Your task to perform on an android device: open app "Pluto TV - Live TV and Movies" Image 0: 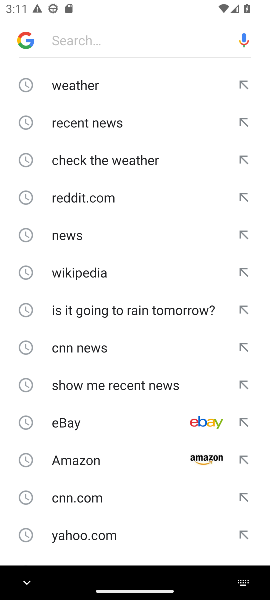
Step 0: press back button
Your task to perform on an android device: open app "Pluto TV - Live TV and Movies" Image 1: 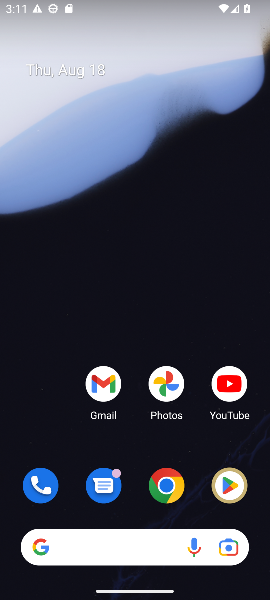
Step 1: click (225, 486)
Your task to perform on an android device: open app "Pluto TV - Live TV and Movies" Image 2: 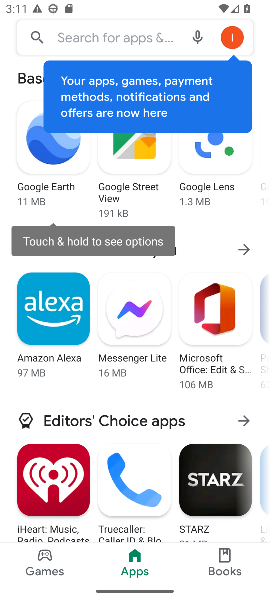
Step 2: click (107, 24)
Your task to perform on an android device: open app "Pluto TV - Live TV and Movies" Image 3: 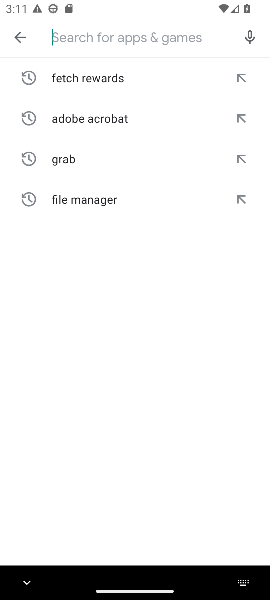
Step 3: type "pluto tv"
Your task to perform on an android device: open app "Pluto TV - Live TV and Movies" Image 4: 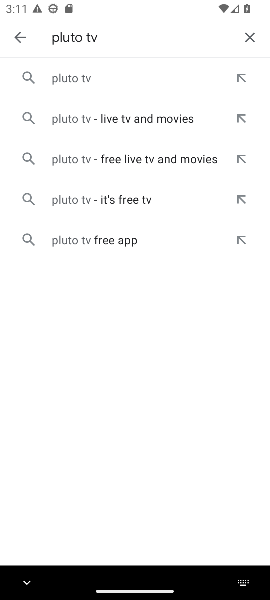
Step 4: click (122, 117)
Your task to perform on an android device: open app "Pluto TV - Live TV and Movies" Image 5: 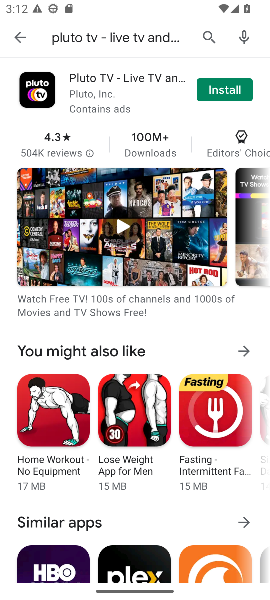
Step 5: task complete